Your task to perform on an android device: Search for Italian restaurants on Maps Image 0: 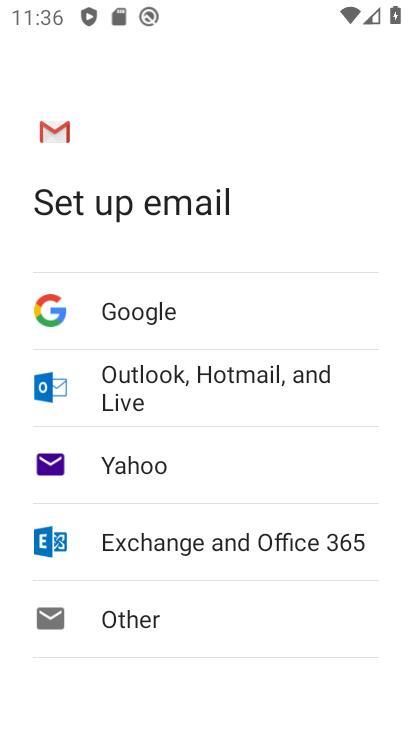
Step 0: press home button
Your task to perform on an android device: Search for Italian restaurants on Maps Image 1: 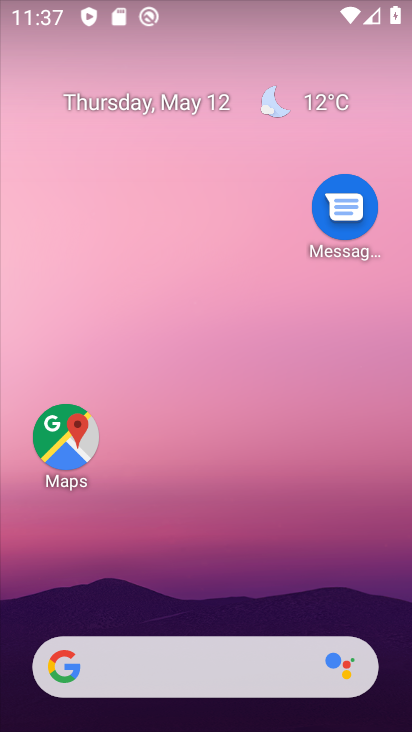
Step 1: click (59, 459)
Your task to perform on an android device: Search for Italian restaurants on Maps Image 2: 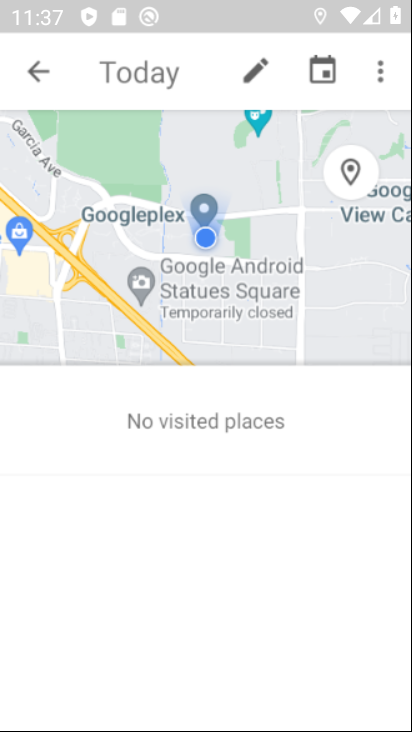
Step 2: click (36, 86)
Your task to perform on an android device: Search for Italian restaurants on Maps Image 3: 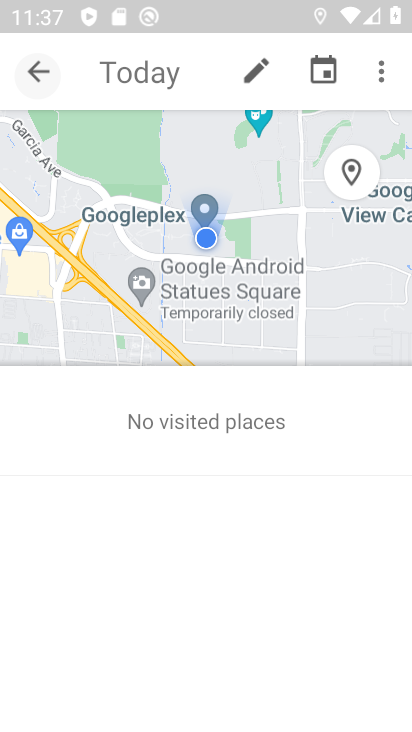
Step 3: click (33, 56)
Your task to perform on an android device: Search for Italian restaurants on Maps Image 4: 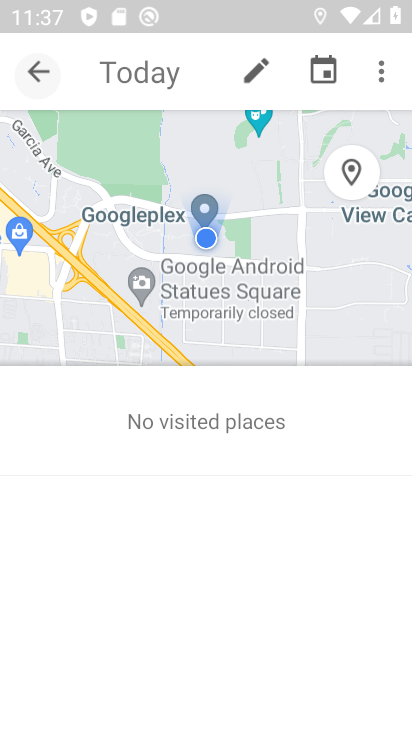
Step 4: click (41, 61)
Your task to perform on an android device: Search for Italian restaurants on Maps Image 5: 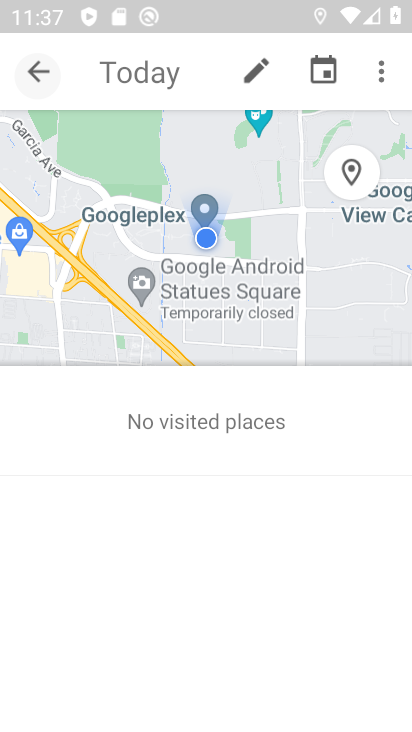
Step 5: click (45, 65)
Your task to perform on an android device: Search for Italian restaurants on Maps Image 6: 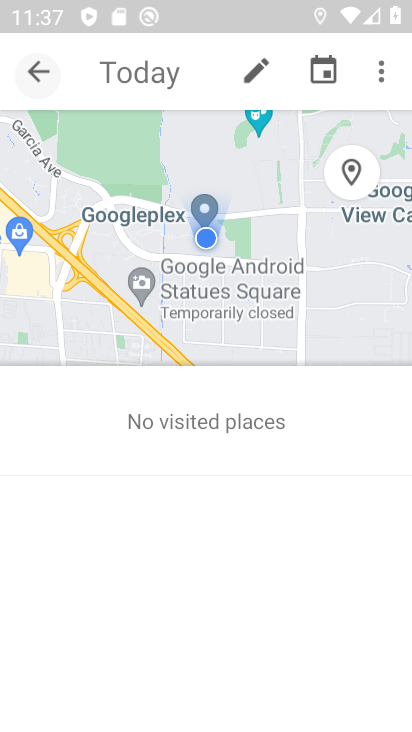
Step 6: click (45, 65)
Your task to perform on an android device: Search for Italian restaurants on Maps Image 7: 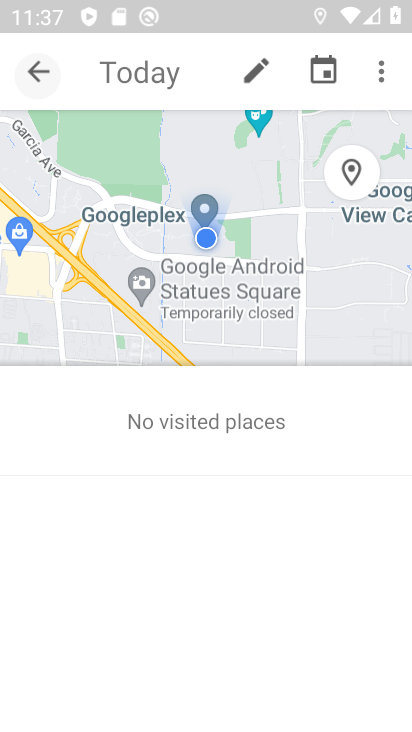
Step 7: click (28, 71)
Your task to perform on an android device: Search for Italian restaurants on Maps Image 8: 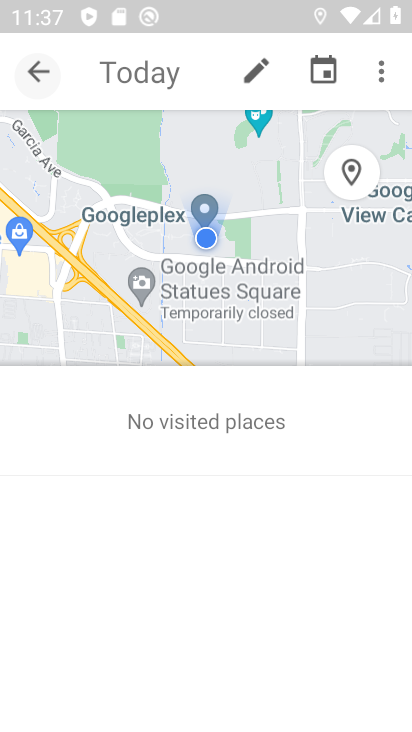
Step 8: click (28, 71)
Your task to perform on an android device: Search for Italian restaurants on Maps Image 9: 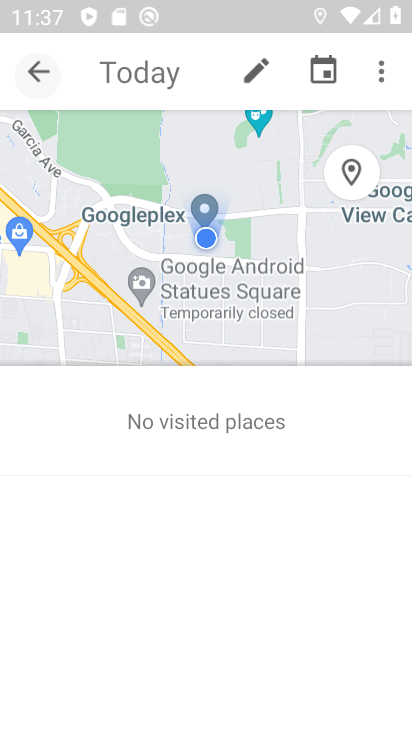
Step 9: click (37, 69)
Your task to perform on an android device: Search for Italian restaurants on Maps Image 10: 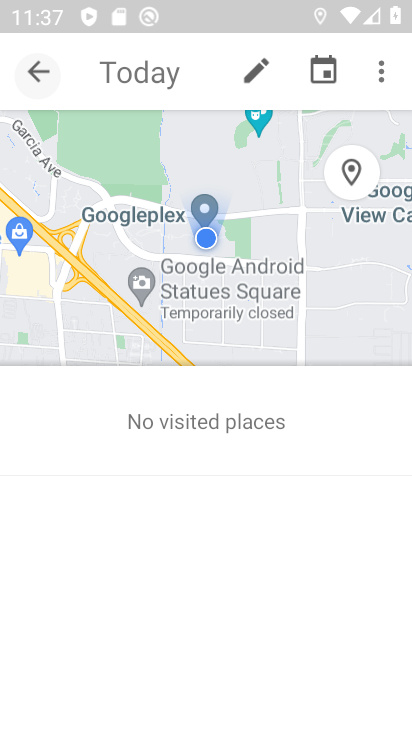
Step 10: click (37, 69)
Your task to perform on an android device: Search for Italian restaurants on Maps Image 11: 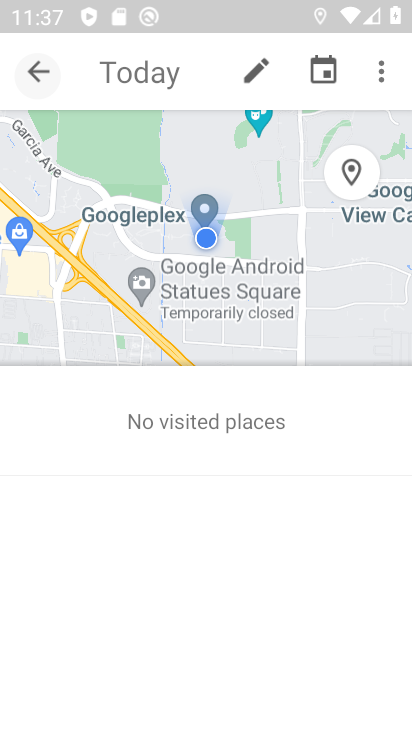
Step 11: click (37, 69)
Your task to perform on an android device: Search for Italian restaurants on Maps Image 12: 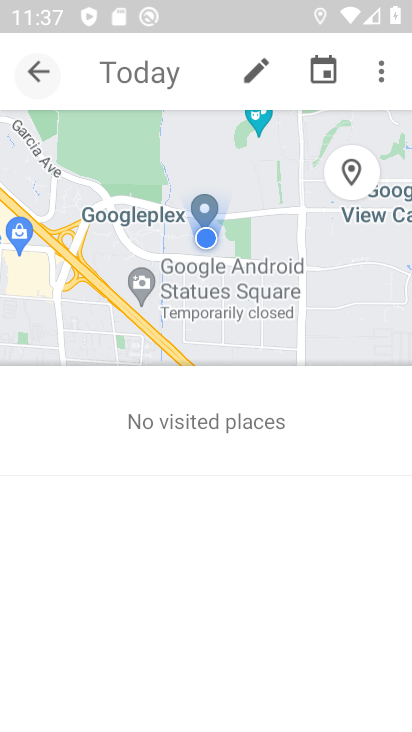
Step 12: click (37, 69)
Your task to perform on an android device: Search for Italian restaurants on Maps Image 13: 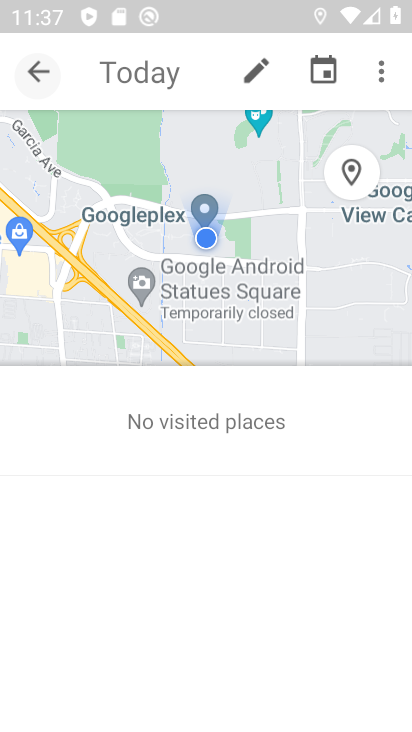
Step 13: click (37, 69)
Your task to perform on an android device: Search for Italian restaurants on Maps Image 14: 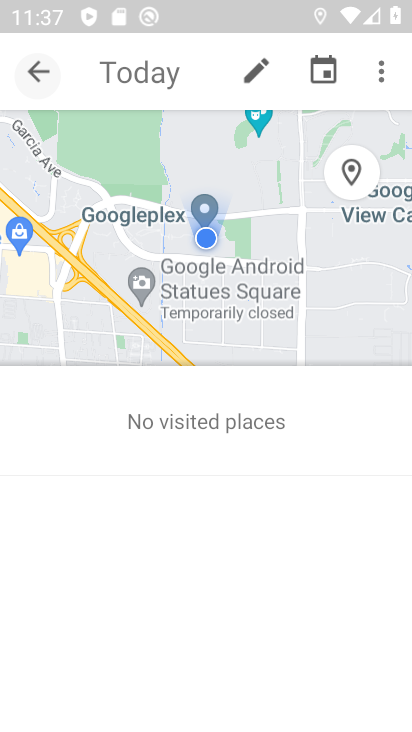
Step 14: click (37, 69)
Your task to perform on an android device: Search for Italian restaurants on Maps Image 15: 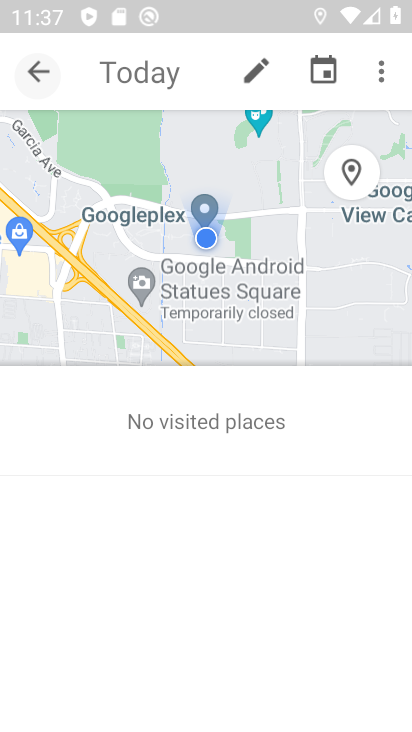
Step 15: click (37, 69)
Your task to perform on an android device: Search for Italian restaurants on Maps Image 16: 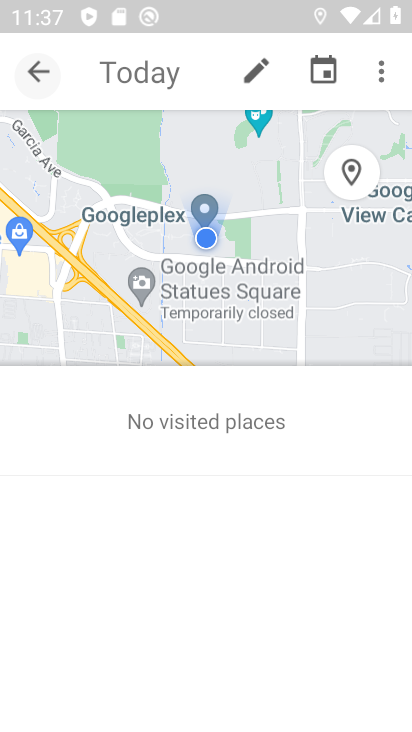
Step 16: click (37, 69)
Your task to perform on an android device: Search for Italian restaurants on Maps Image 17: 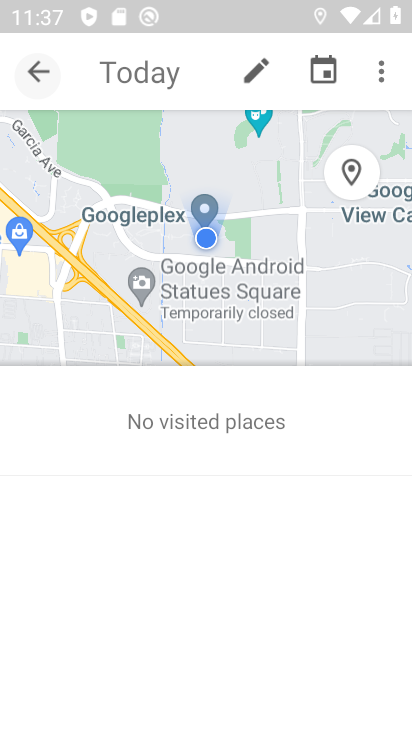
Step 17: click (34, 85)
Your task to perform on an android device: Search for Italian restaurants on Maps Image 18: 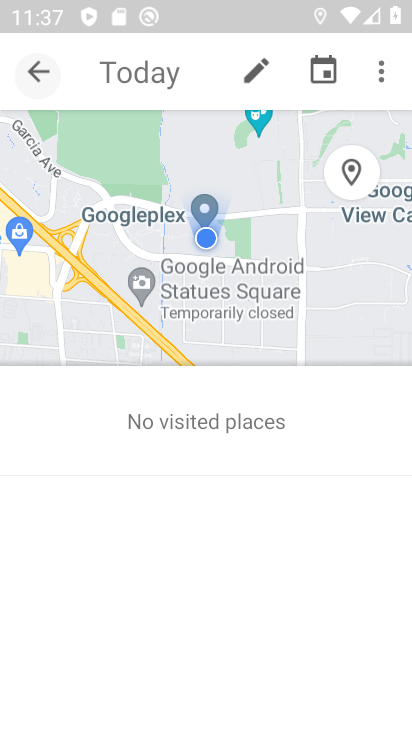
Step 18: click (34, 85)
Your task to perform on an android device: Search for Italian restaurants on Maps Image 19: 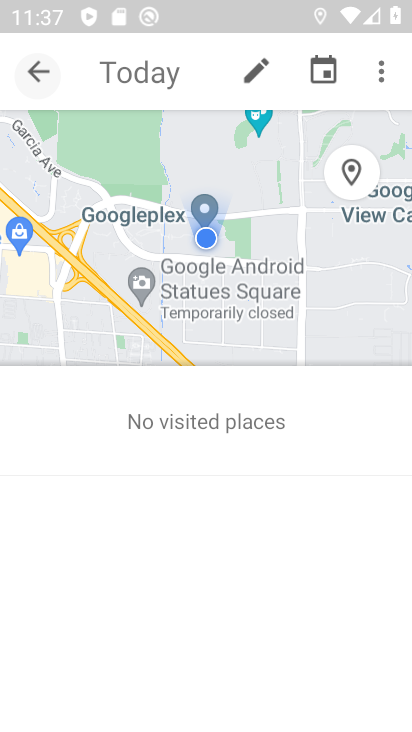
Step 19: click (34, 85)
Your task to perform on an android device: Search for Italian restaurants on Maps Image 20: 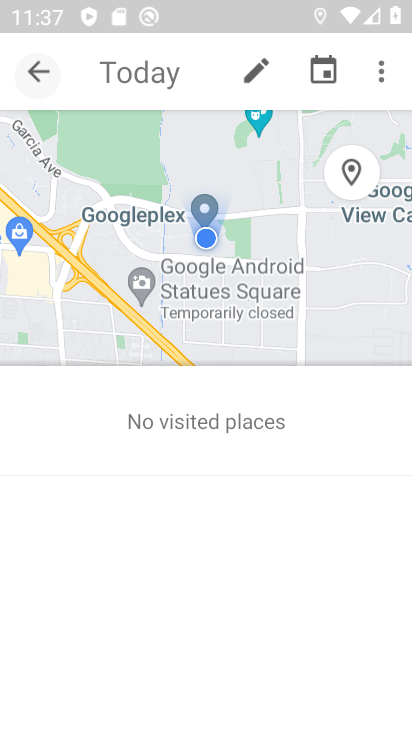
Step 20: click (34, 85)
Your task to perform on an android device: Search for Italian restaurants on Maps Image 21: 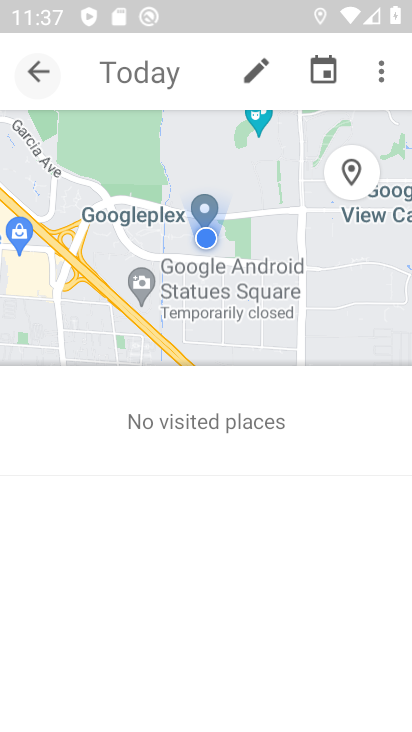
Step 21: click (34, 85)
Your task to perform on an android device: Search for Italian restaurants on Maps Image 22: 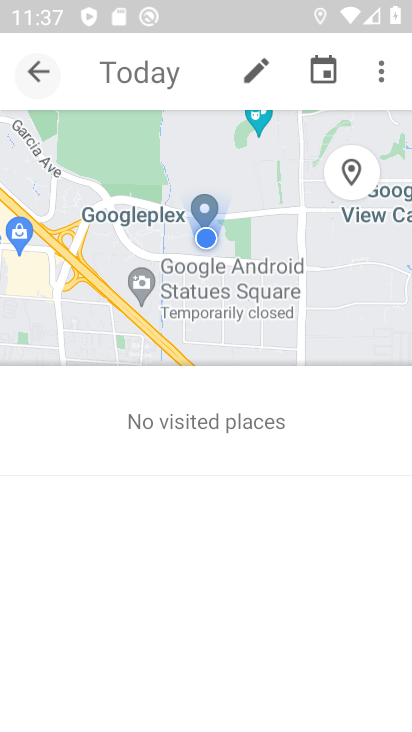
Step 22: click (34, 85)
Your task to perform on an android device: Search for Italian restaurants on Maps Image 23: 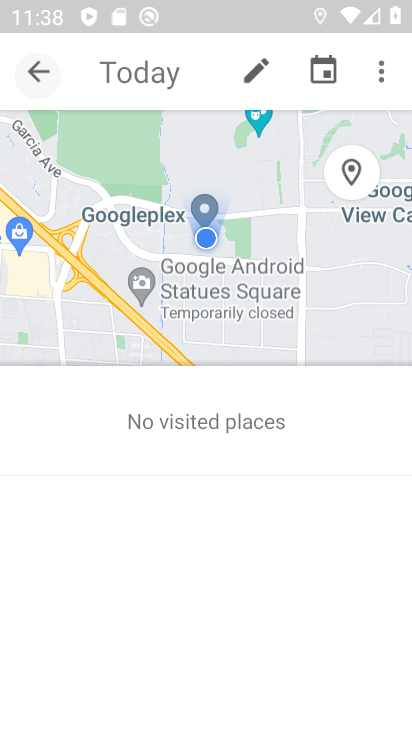
Step 23: click (25, 82)
Your task to perform on an android device: Search for Italian restaurants on Maps Image 24: 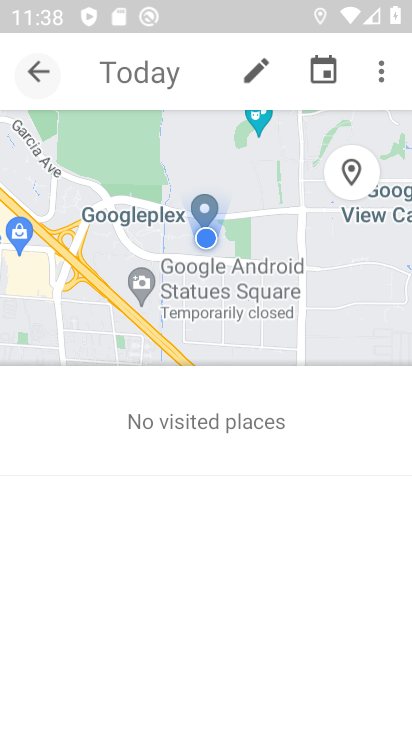
Step 24: click (40, 62)
Your task to perform on an android device: Search for Italian restaurants on Maps Image 25: 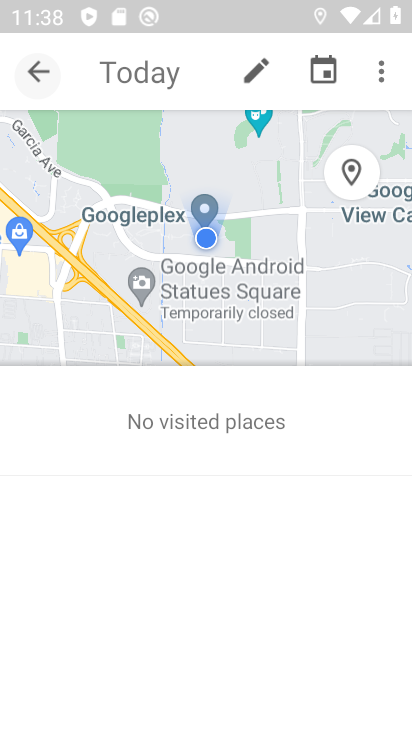
Step 25: click (40, 62)
Your task to perform on an android device: Search for Italian restaurants on Maps Image 26: 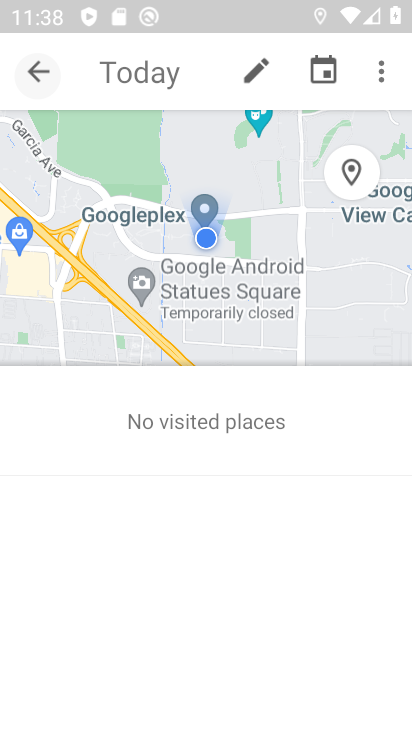
Step 26: click (40, 62)
Your task to perform on an android device: Search for Italian restaurants on Maps Image 27: 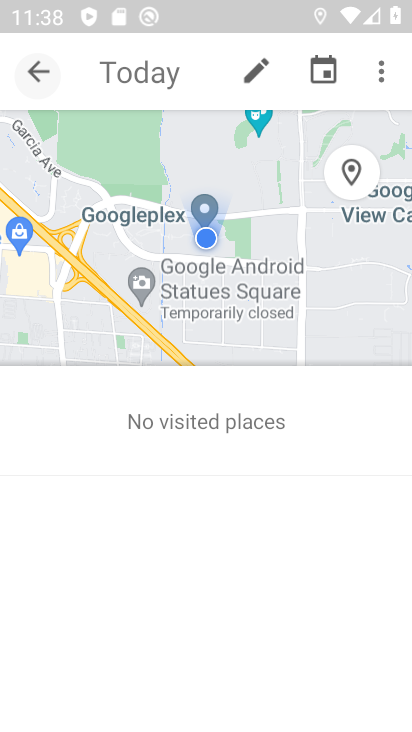
Step 27: press back button
Your task to perform on an android device: Search for Italian restaurants on Maps Image 28: 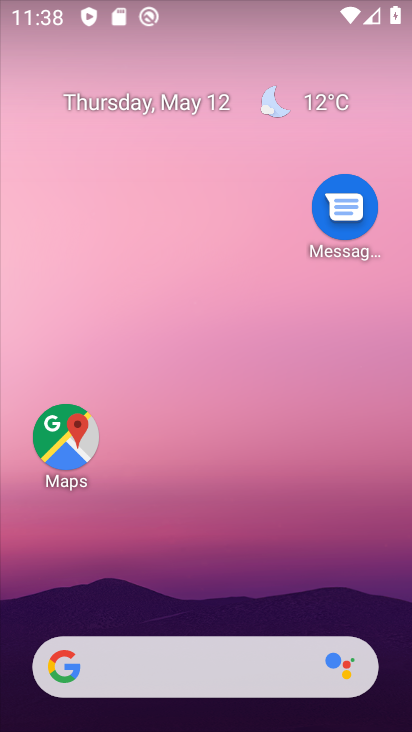
Step 28: press back button
Your task to perform on an android device: Search for Italian restaurants on Maps Image 29: 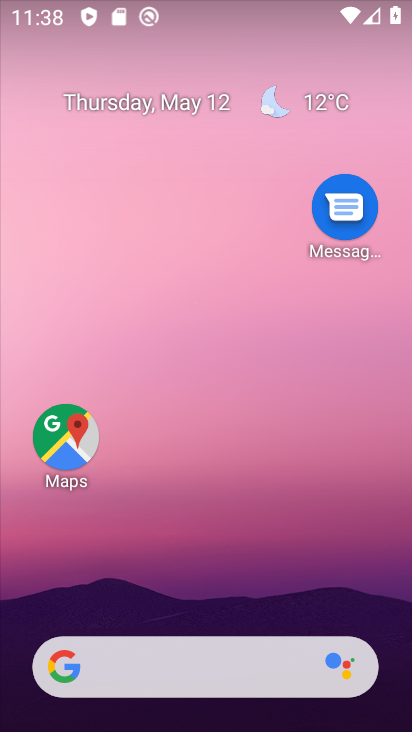
Step 29: drag from (277, 531) to (265, 13)
Your task to perform on an android device: Search for Italian restaurants on Maps Image 30: 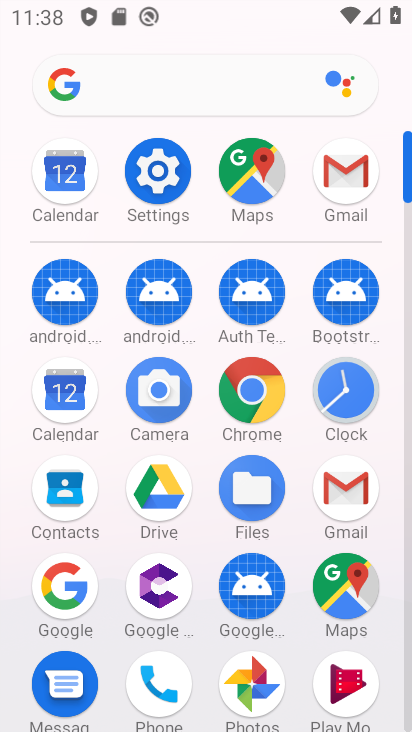
Step 30: click (246, 195)
Your task to perform on an android device: Search for Italian restaurants on Maps Image 31: 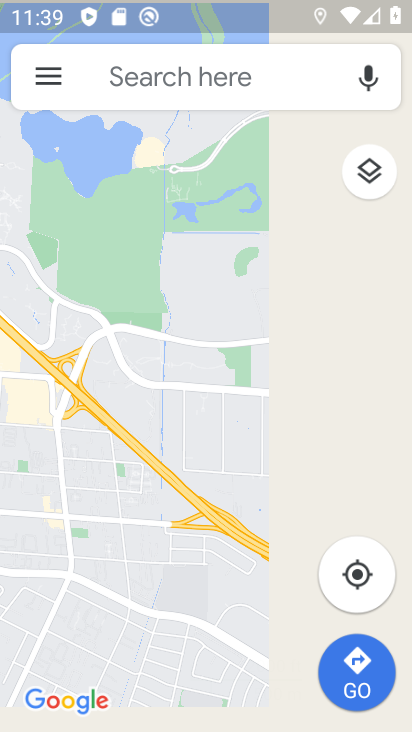
Step 31: click (250, 87)
Your task to perform on an android device: Search for Italian restaurants on Maps Image 32: 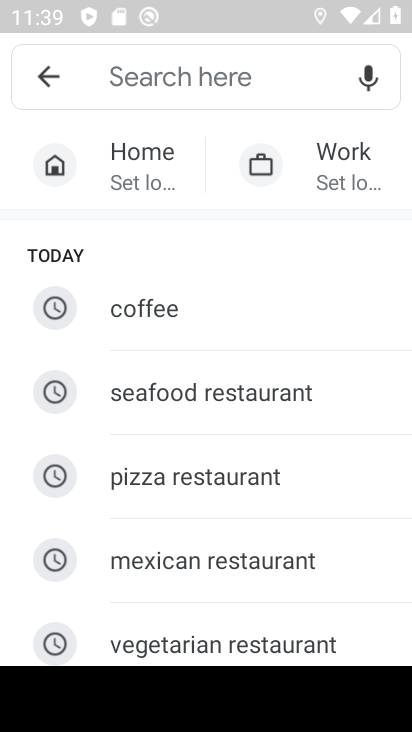
Step 32: type "Italian restaurants"
Your task to perform on an android device: Search for Italian restaurants on Maps Image 33: 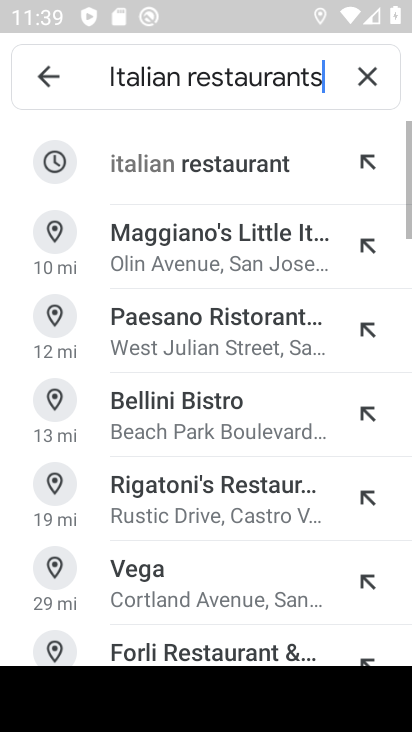
Step 33: click (254, 136)
Your task to perform on an android device: Search for Italian restaurants on Maps Image 34: 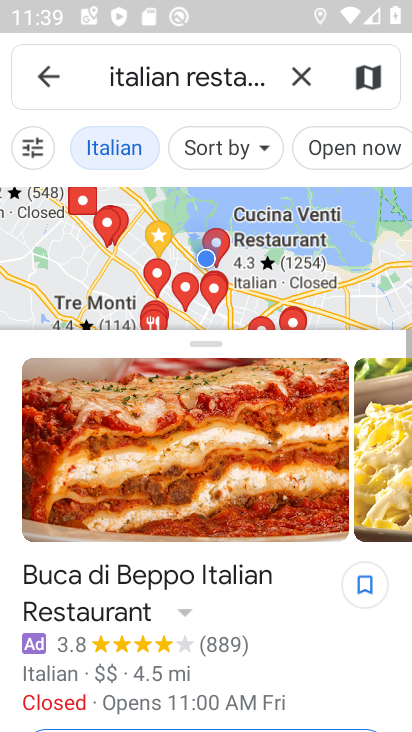
Step 34: task complete